Your task to perform on an android device: What's the weather going to be this weekend? Image 0: 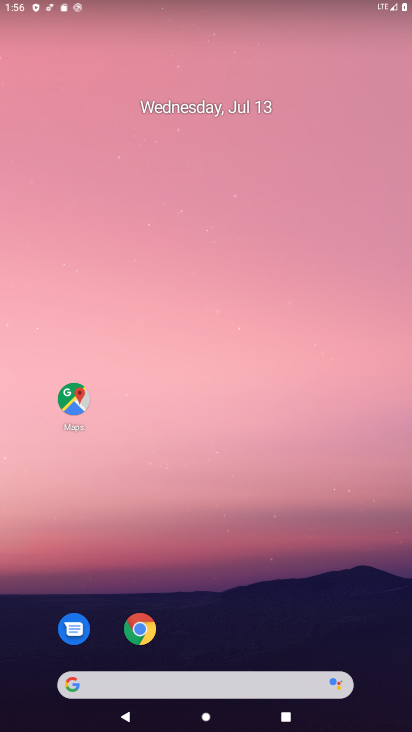
Step 0: click (202, 674)
Your task to perform on an android device: What's the weather going to be this weekend? Image 1: 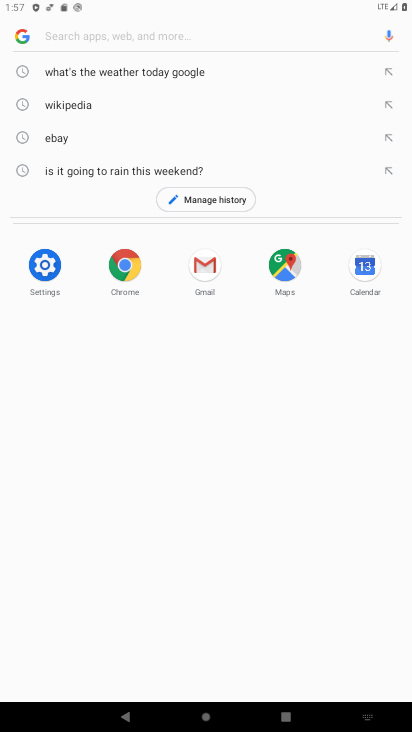
Step 1: type "weather"
Your task to perform on an android device: What's the weather going to be this weekend? Image 2: 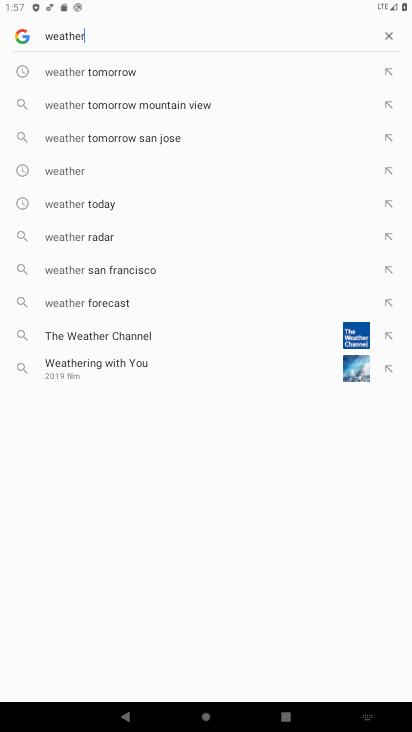
Step 2: click (140, 80)
Your task to perform on an android device: What's the weather going to be this weekend? Image 3: 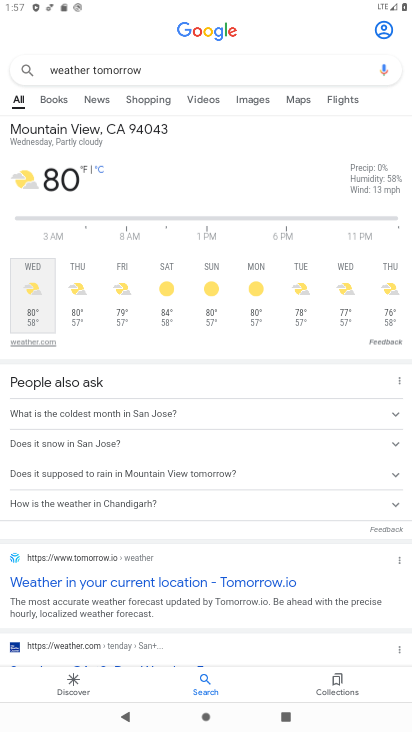
Step 3: task complete